Your task to perform on an android device: Open Youtube and go to "Your channel" Image 0: 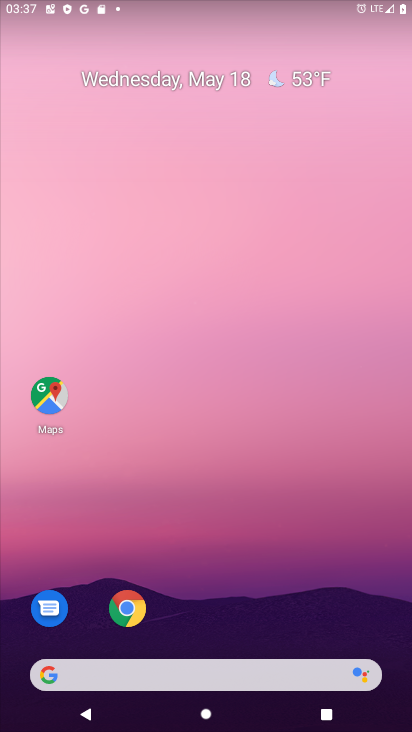
Step 0: drag from (335, 620) to (322, 6)
Your task to perform on an android device: Open Youtube and go to "Your channel" Image 1: 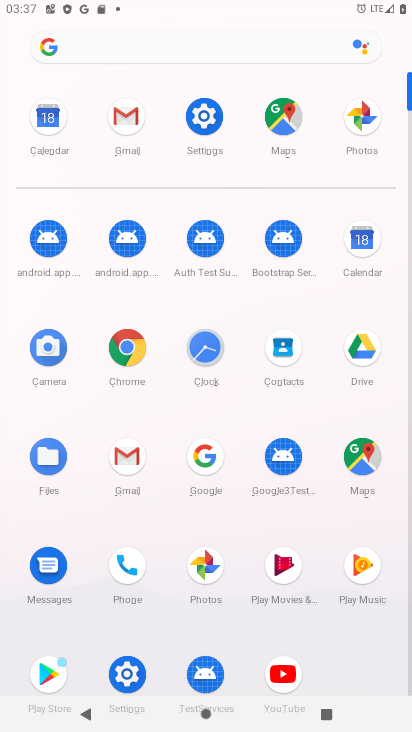
Step 1: click (277, 667)
Your task to perform on an android device: Open Youtube and go to "Your channel" Image 2: 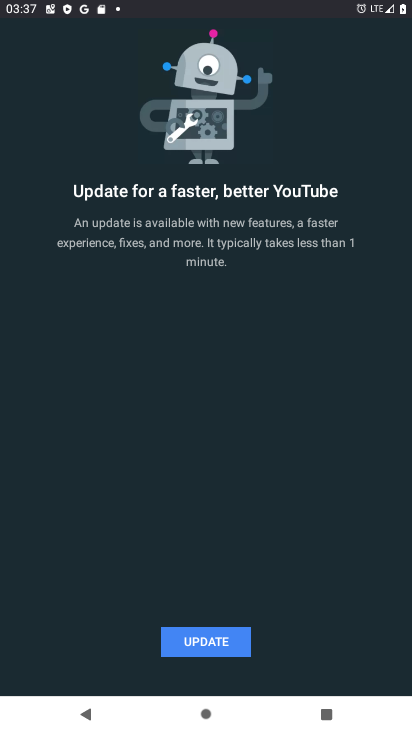
Step 2: click (214, 649)
Your task to perform on an android device: Open Youtube and go to "Your channel" Image 3: 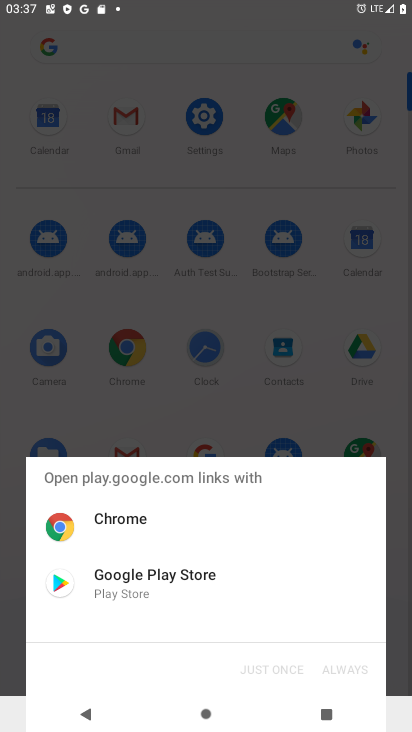
Step 3: click (116, 554)
Your task to perform on an android device: Open Youtube and go to "Your channel" Image 4: 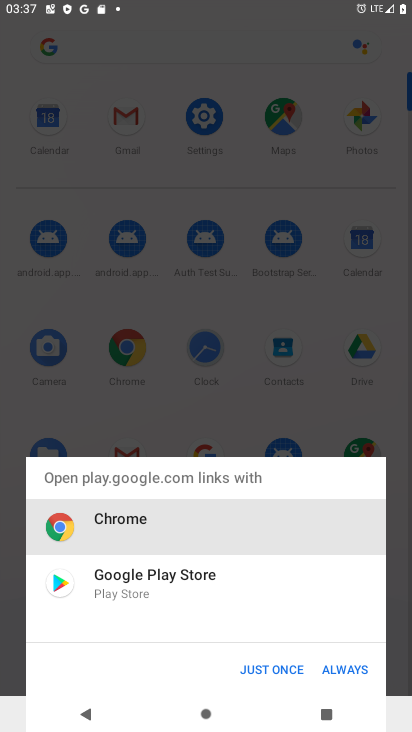
Step 4: click (285, 676)
Your task to perform on an android device: Open Youtube and go to "Your channel" Image 5: 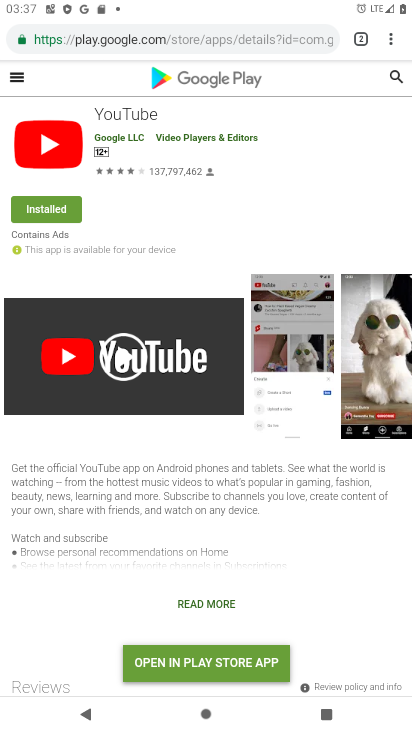
Step 5: press back button
Your task to perform on an android device: Open Youtube and go to "Your channel" Image 6: 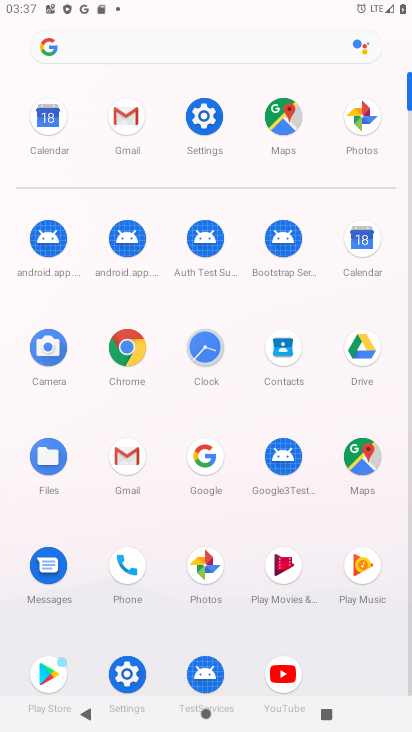
Step 6: click (292, 680)
Your task to perform on an android device: Open Youtube and go to "Your channel" Image 7: 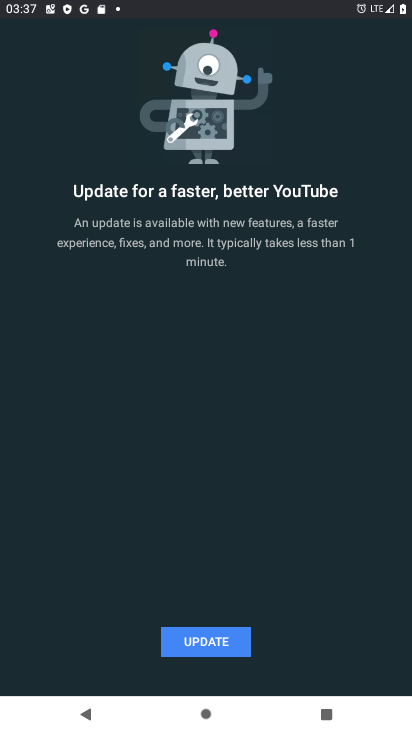
Step 7: click (201, 648)
Your task to perform on an android device: Open Youtube and go to "Your channel" Image 8: 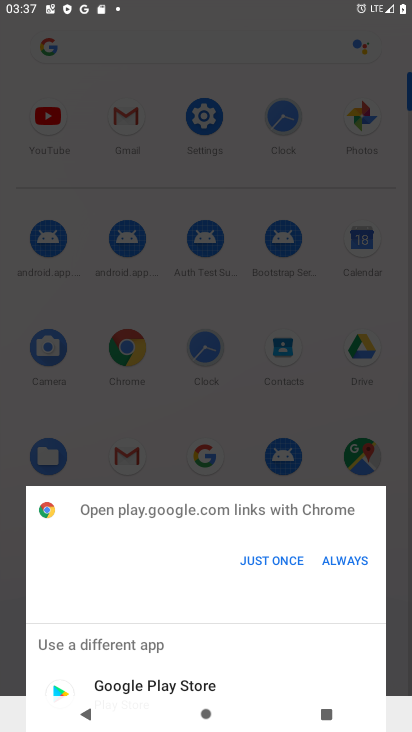
Step 8: drag from (173, 626) to (201, 472)
Your task to perform on an android device: Open Youtube and go to "Your channel" Image 9: 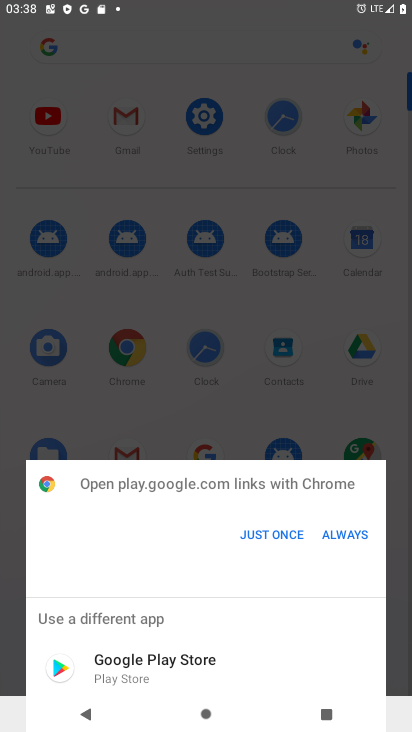
Step 9: click (113, 664)
Your task to perform on an android device: Open Youtube and go to "Your channel" Image 10: 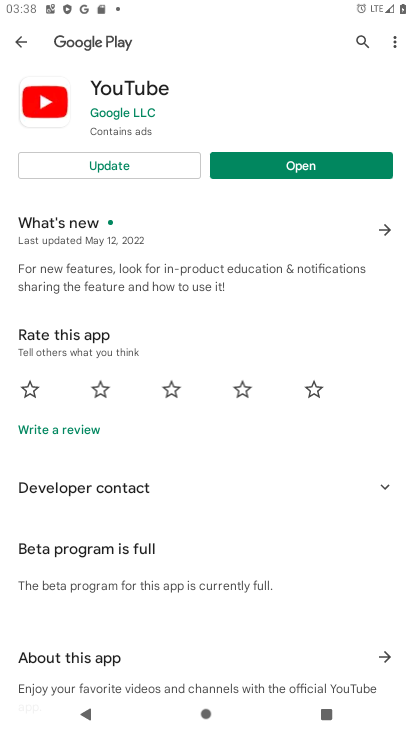
Step 10: click (132, 175)
Your task to perform on an android device: Open Youtube and go to "Your channel" Image 11: 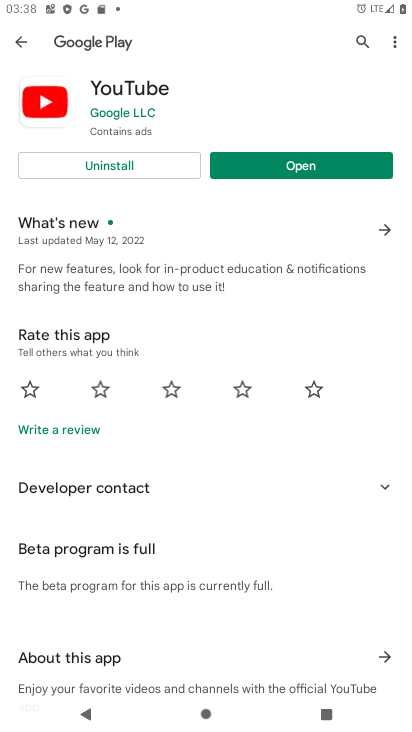
Step 11: click (270, 171)
Your task to perform on an android device: Open Youtube and go to "Your channel" Image 12: 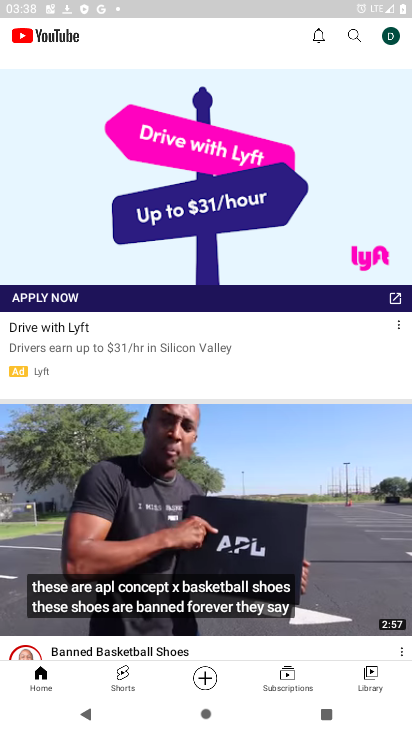
Step 12: click (389, 34)
Your task to perform on an android device: Open Youtube and go to "Your channel" Image 13: 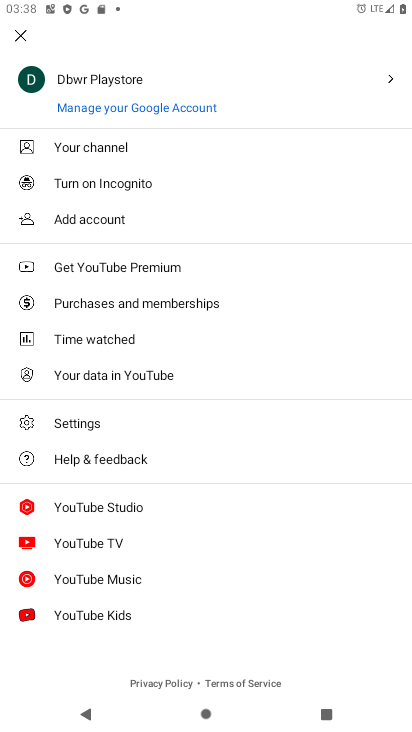
Step 13: click (118, 153)
Your task to perform on an android device: Open Youtube and go to "Your channel" Image 14: 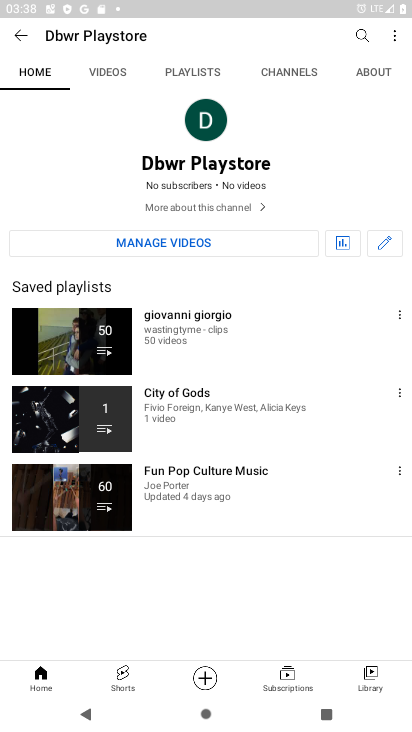
Step 14: task complete